Your task to perform on an android device: refresh tabs in the chrome app Image 0: 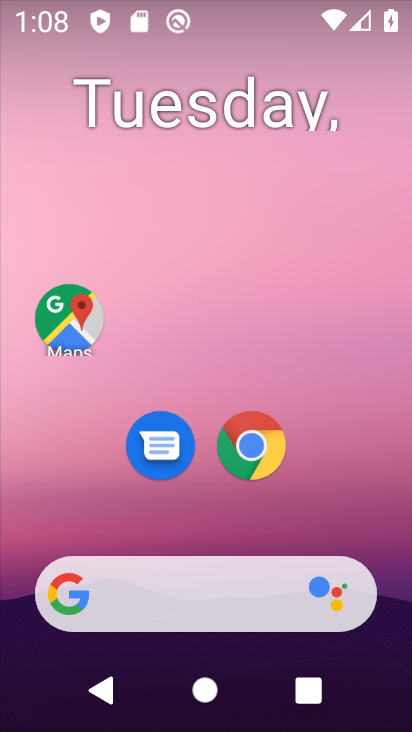
Step 0: click (244, 473)
Your task to perform on an android device: refresh tabs in the chrome app Image 1: 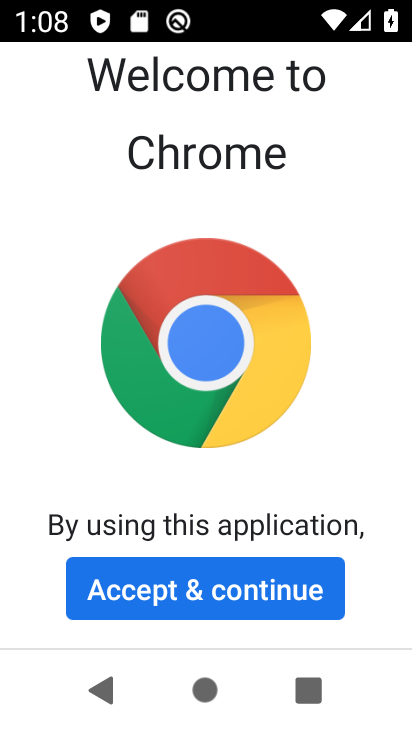
Step 1: click (288, 562)
Your task to perform on an android device: refresh tabs in the chrome app Image 2: 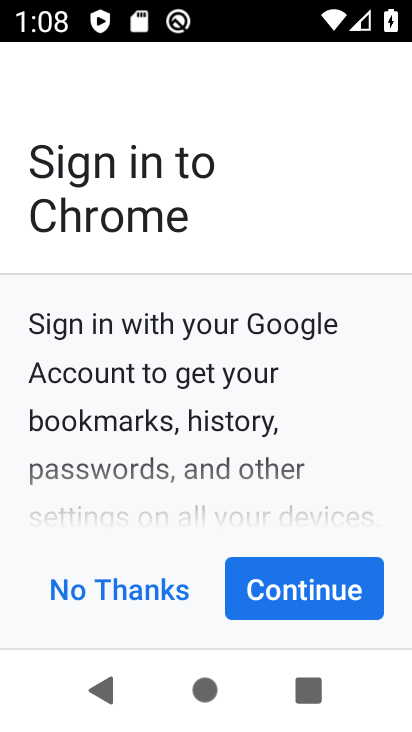
Step 2: click (279, 574)
Your task to perform on an android device: refresh tabs in the chrome app Image 3: 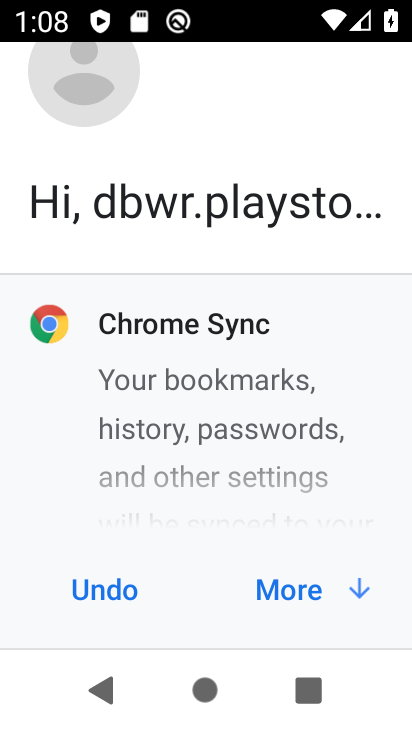
Step 3: click (291, 587)
Your task to perform on an android device: refresh tabs in the chrome app Image 4: 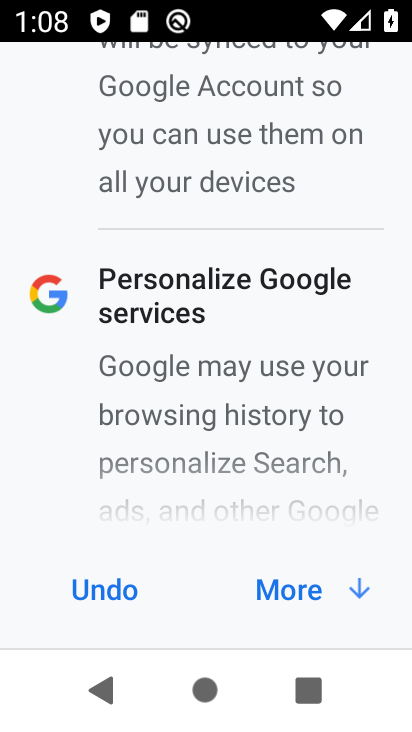
Step 4: click (334, 586)
Your task to perform on an android device: refresh tabs in the chrome app Image 5: 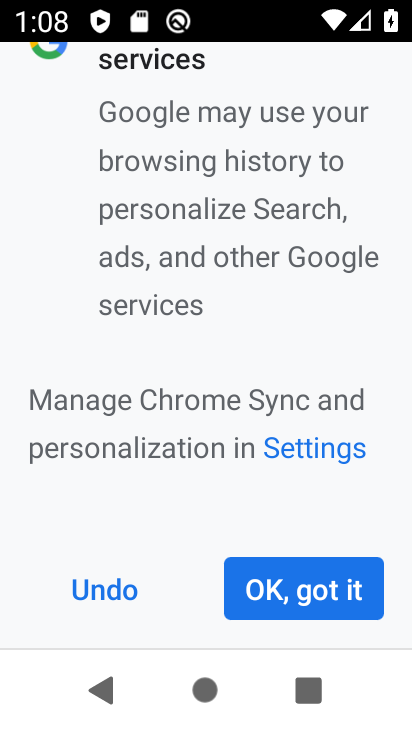
Step 5: click (313, 578)
Your task to perform on an android device: refresh tabs in the chrome app Image 6: 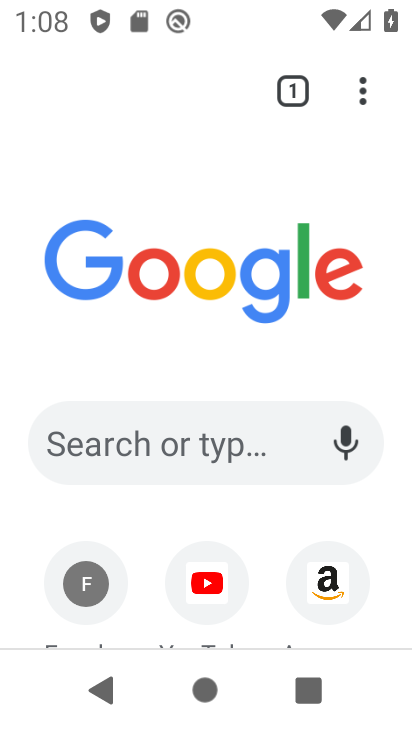
Step 6: click (359, 85)
Your task to perform on an android device: refresh tabs in the chrome app Image 7: 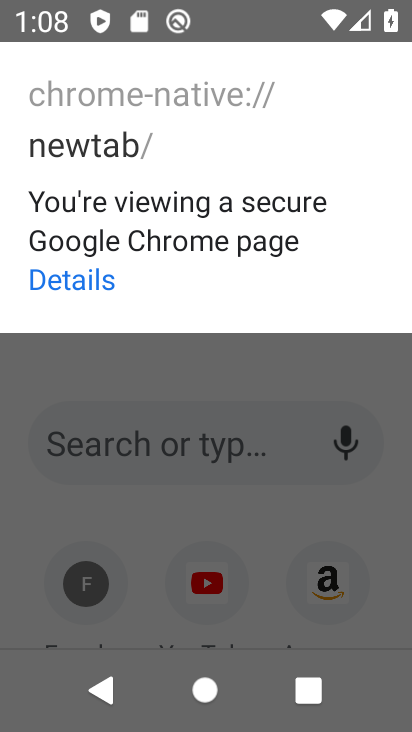
Step 7: click (260, 417)
Your task to perform on an android device: refresh tabs in the chrome app Image 8: 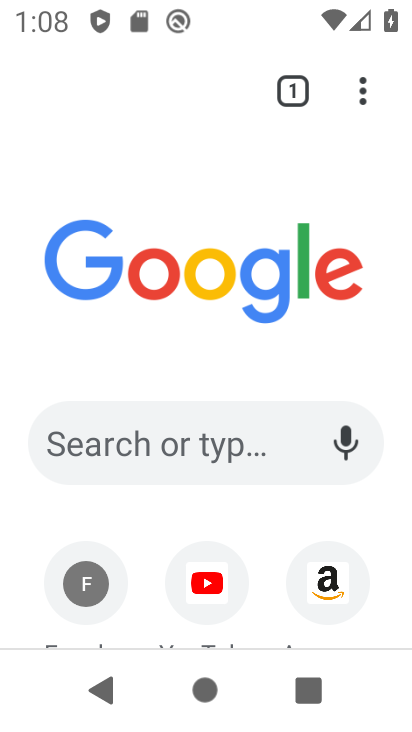
Step 8: click (374, 85)
Your task to perform on an android device: refresh tabs in the chrome app Image 9: 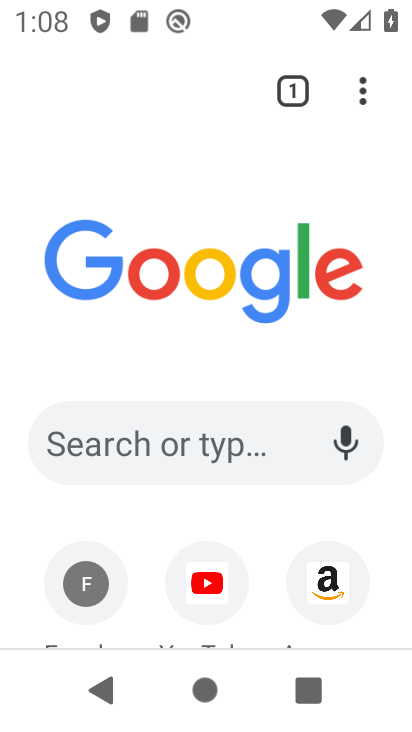
Step 9: click (371, 95)
Your task to perform on an android device: refresh tabs in the chrome app Image 10: 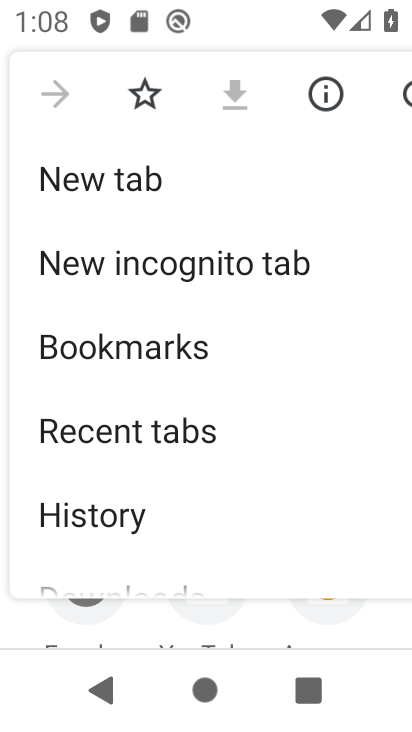
Step 10: drag from (333, 85) to (146, 98)
Your task to perform on an android device: refresh tabs in the chrome app Image 11: 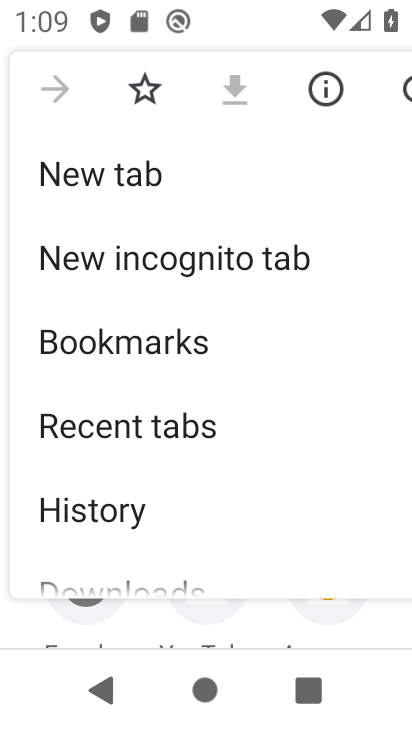
Step 11: click (400, 84)
Your task to perform on an android device: refresh tabs in the chrome app Image 12: 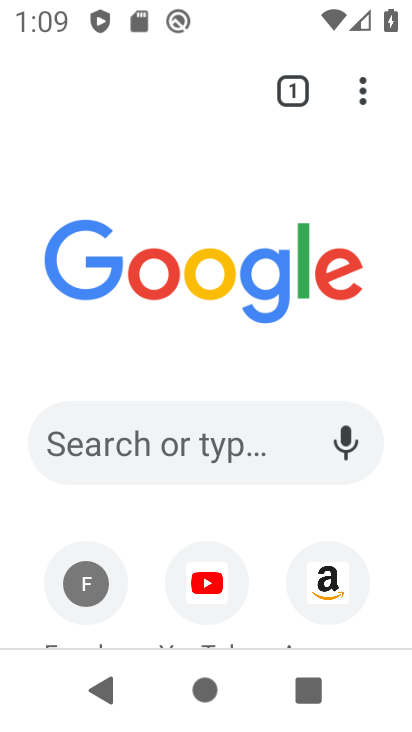
Step 12: task complete